Your task to perform on an android device: Open location settings Image 0: 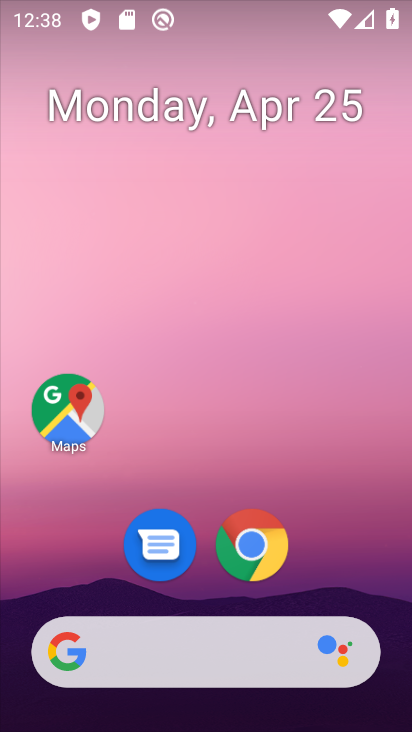
Step 0: drag from (336, 549) to (220, 116)
Your task to perform on an android device: Open location settings Image 1: 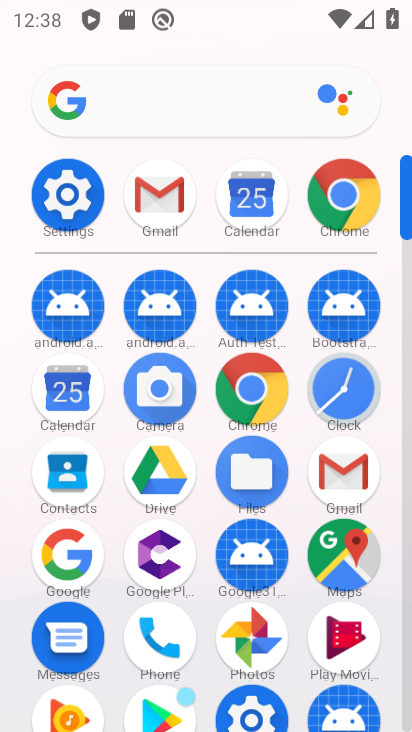
Step 1: click (260, 710)
Your task to perform on an android device: Open location settings Image 2: 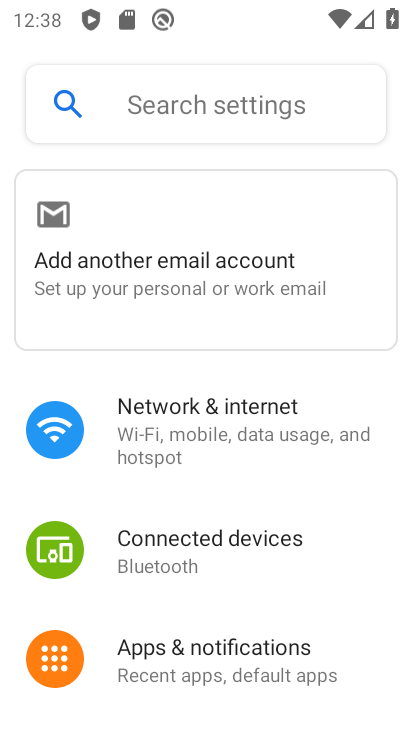
Step 2: drag from (161, 646) to (145, 92)
Your task to perform on an android device: Open location settings Image 3: 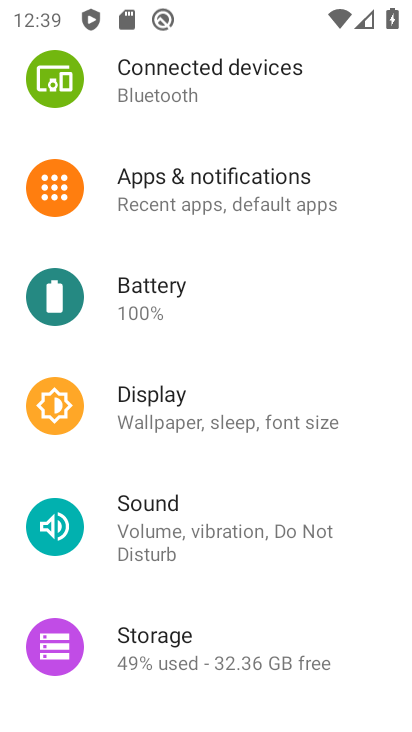
Step 3: drag from (248, 639) to (225, 263)
Your task to perform on an android device: Open location settings Image 4: 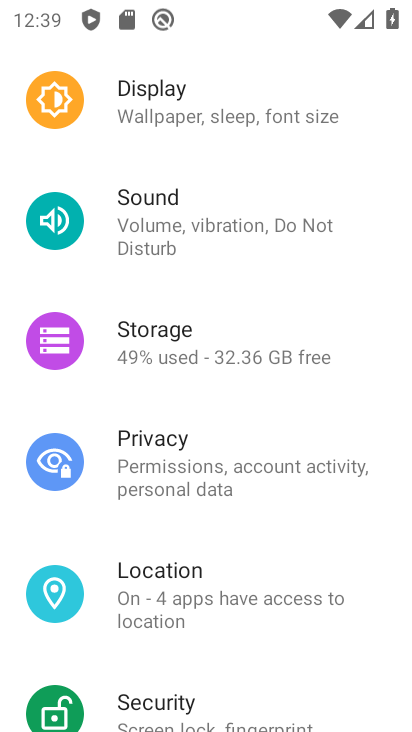
Step 4: click (161, 593)
Your task to perform on an android device: Open location settings Image 5: 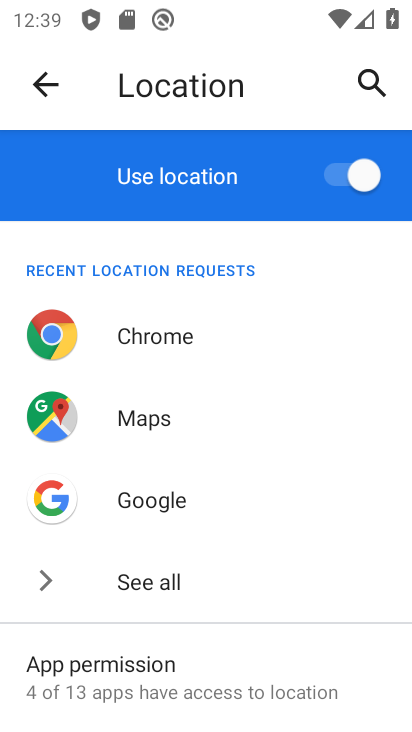
Step 5: task complete